Your task to perform on an android device: Go to Amazon Image 0: 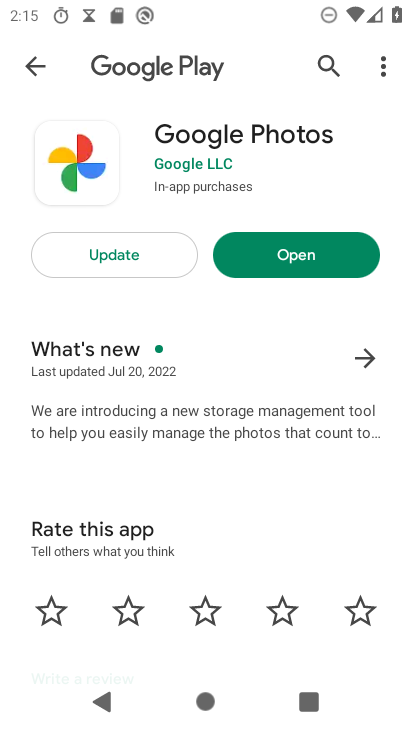
Step 0: press home button
Your task to perform on an android device: Go to Amazon Image 1: 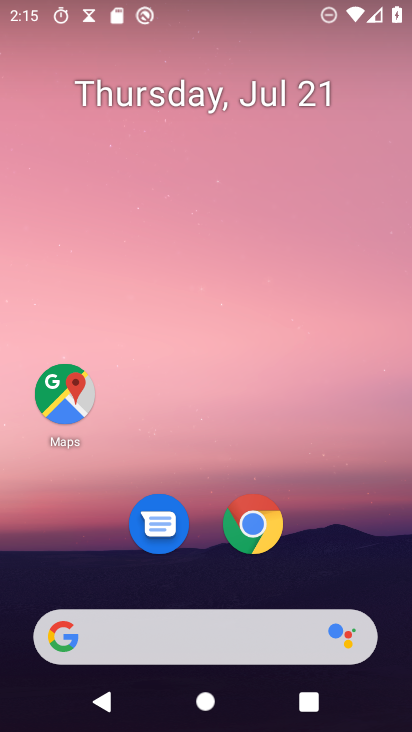
Step 1: click (245, 523)
Your task to perform on an android device: Go to Amazon Image 2: 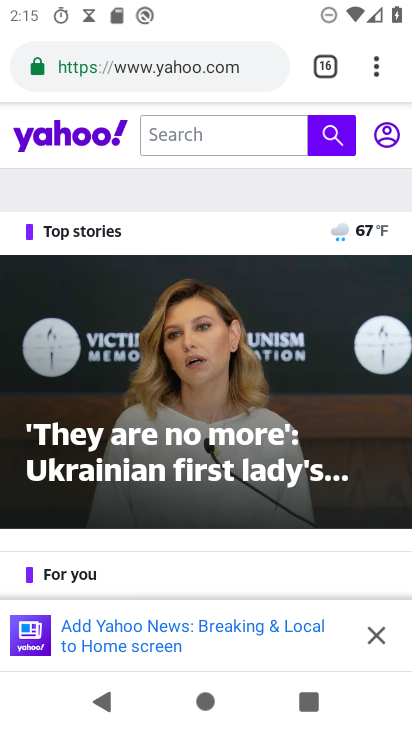
Step 2: drag from (375, 70) to (204, 129)
Your task to perform on an android device: Go to Amazon Image 3: 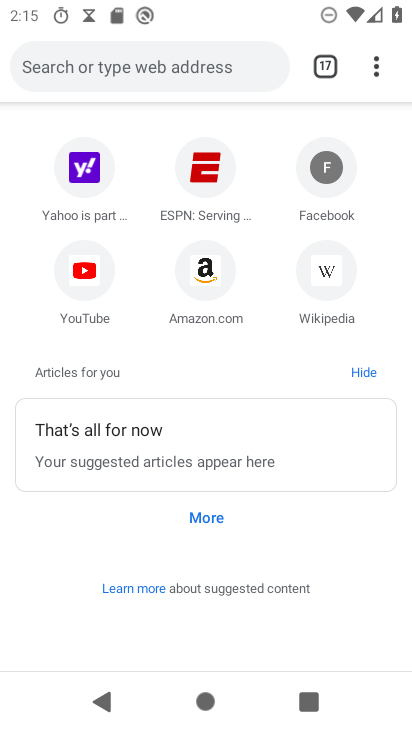
Step 3: click (202, 270)
Your task to perform on an android device: Go to Amazon Image 4: 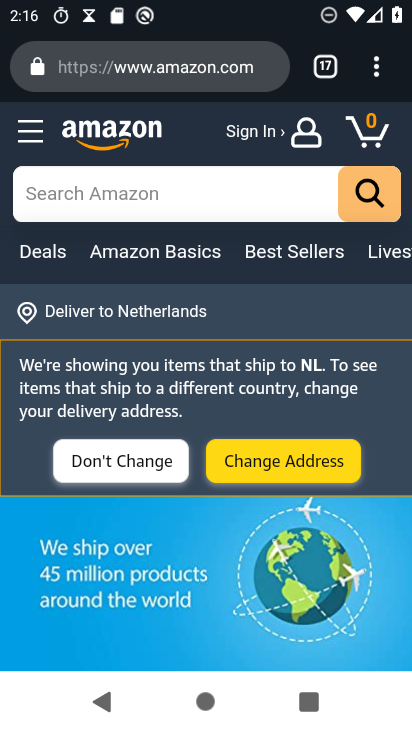
Step 4: task complete